Your task to perform on an android device: toggle wifi Image 0: 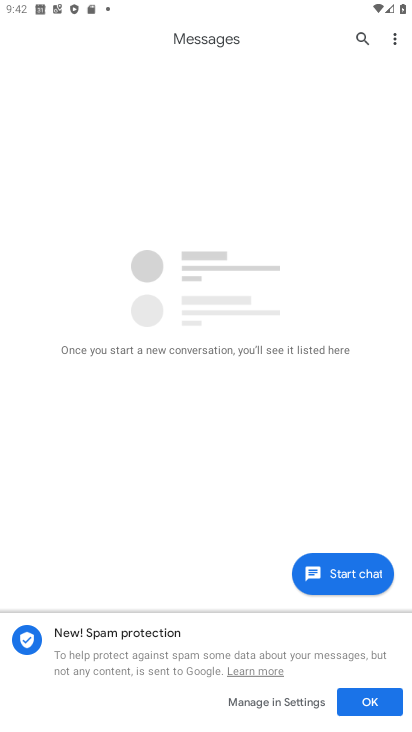
Step 0: press home button
Your task to perform on an android device: toggle wifi Image 1: 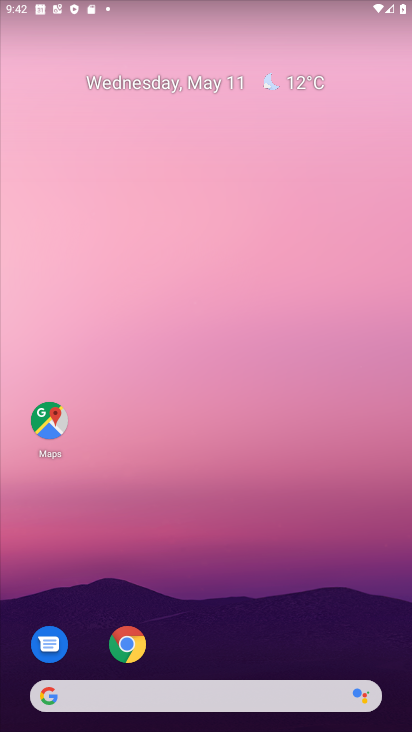
Step 1: drag from (256, 629) to (272, 7)
Your task to perform on an android device: toggle wifi Image 2: 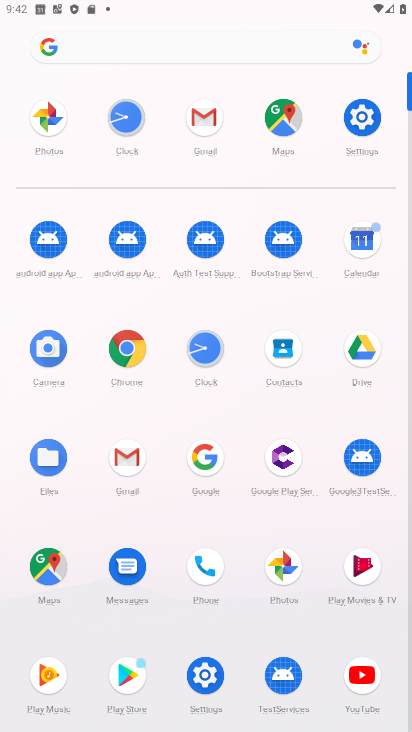
Step 2: click (375, 108)
Your task to perform on an android device: toggle wifi Image 3: 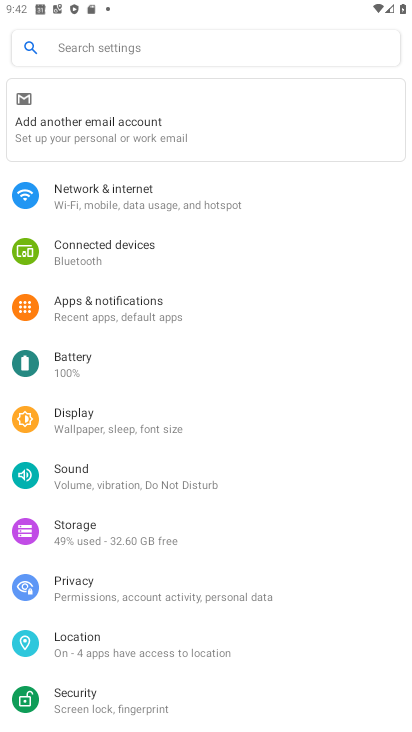
Step 3: click (224, 214)
Your task to perform on an android device: toggle wifi Image 4: 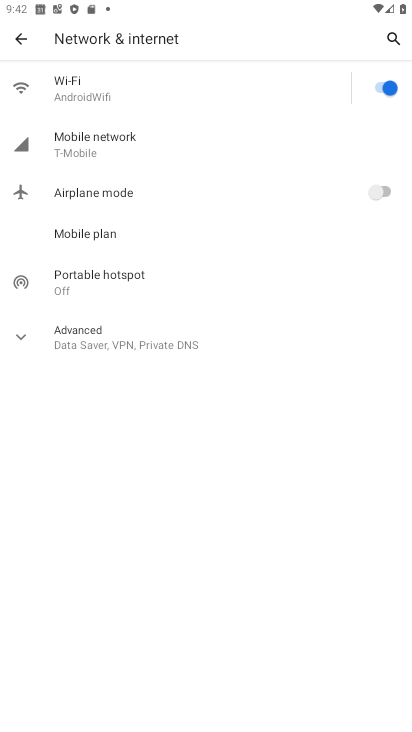
Step 4: click (367, 86)
Your task to perform on an android device: toggle wifi Image 5: 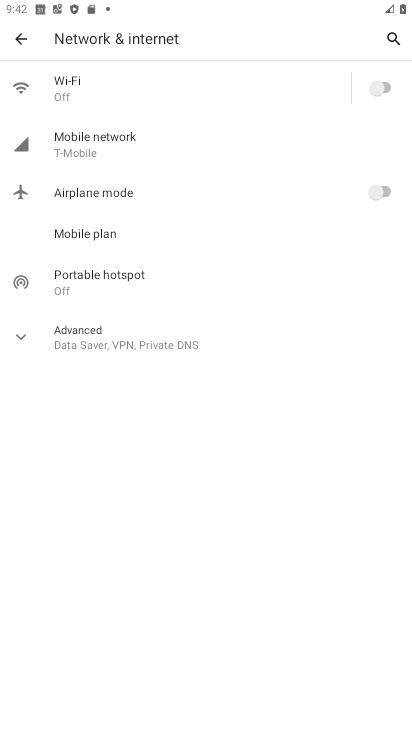
Step 5: task complete